Your task to perform on an android device: Open CNN.com Image 0: 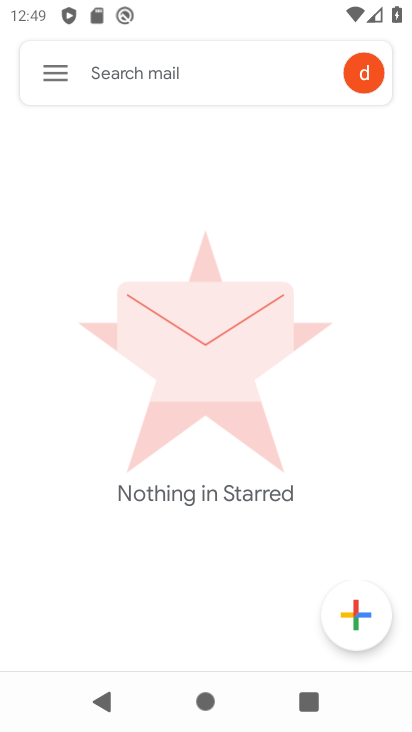
Step 0: press home button
Your task to perform on an android device: Open CNN.com Image 1: 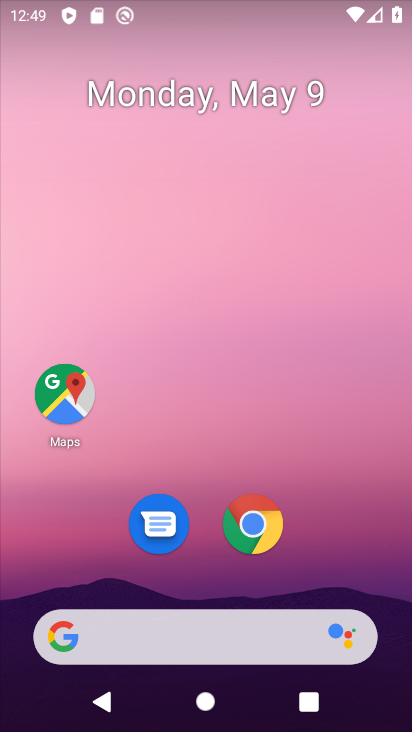
Step 1: click (154, 639)
Your task to perform on an android device: Open CNN.com Image 2: 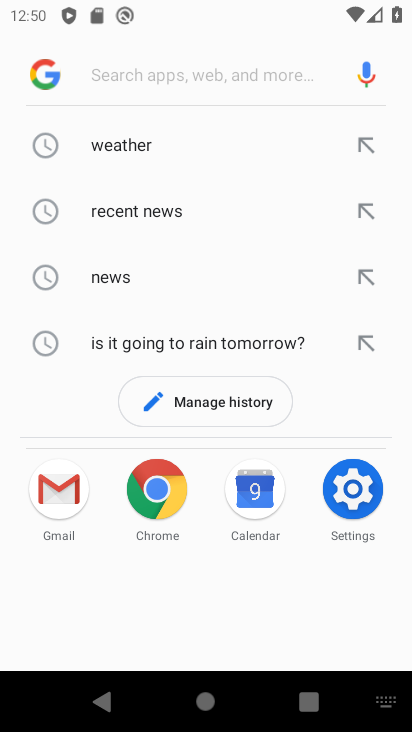
Step 2: type "cnn.com"
Your task to perform on an android device: Open CNN.com Image 3: 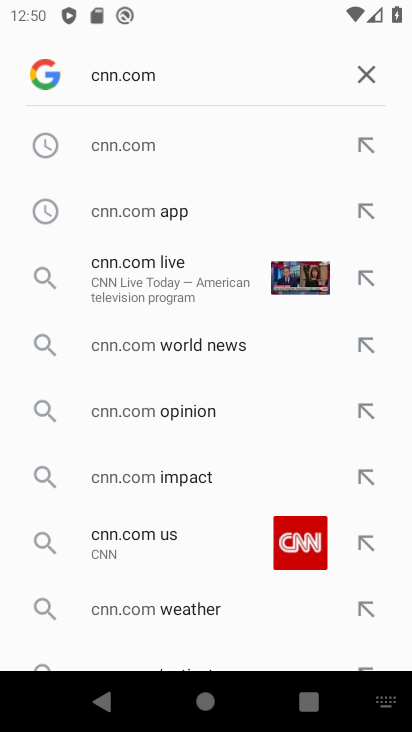
Step 3: click (141, 150)
Your task to perform on an android device: Open CNN.com Image 4: 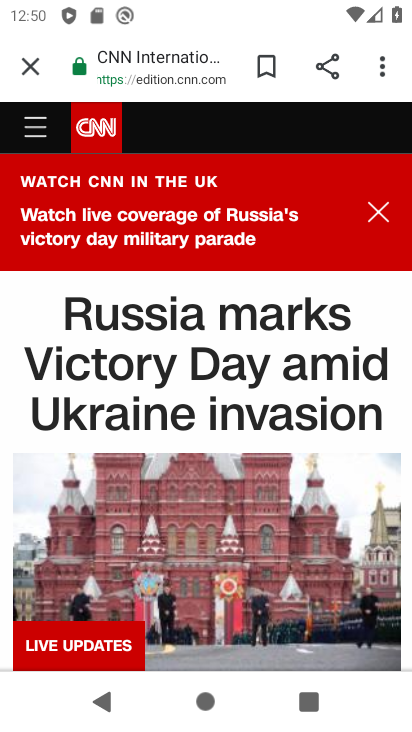
Step 4: task complete